Your task to perform on an android device: turn on translation in the chrome app Image 0: 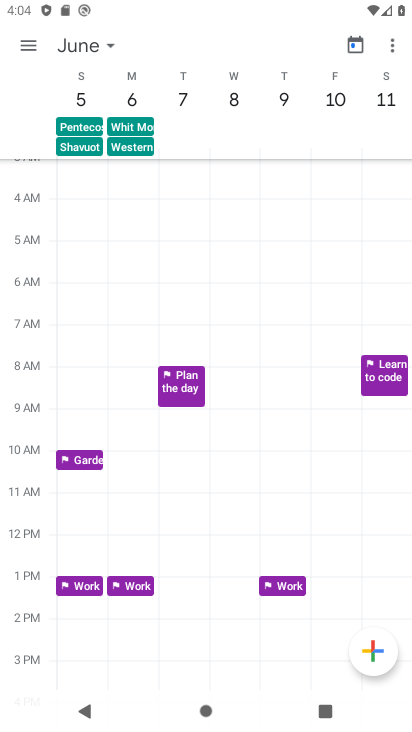
Step 0: press home button
Your task to perform on an android device: turn on translation in the chrome app Image 1: 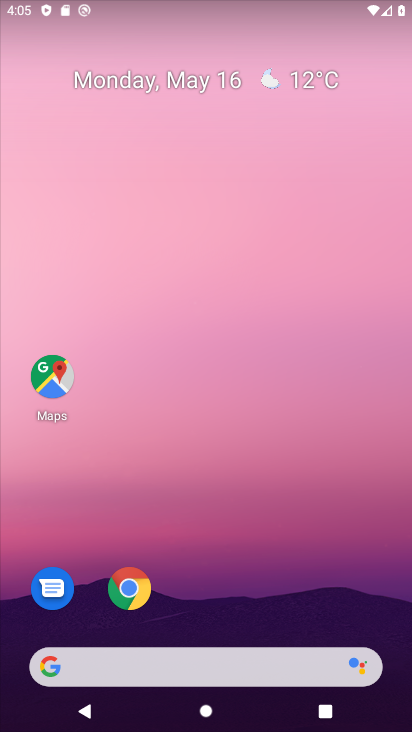
Step 1: click (129, 583)
Your task to perform on an android device: turn on translation in the chrome app Image 2: 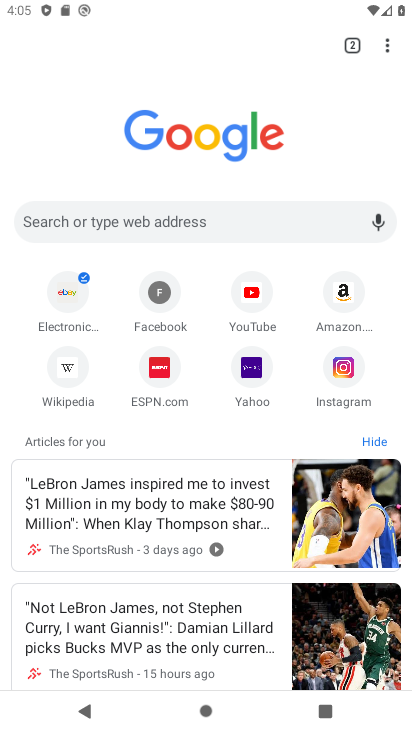
Step 2: click (393, 45)
Your task to perform on an android device: turn on translation in the chrome app Image 3: 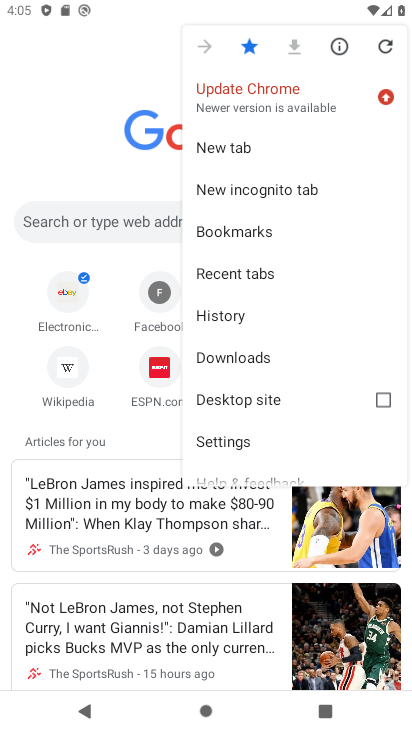
Step 3: click (243, 435)
Your task to perform on an android device: turn on translation in the chrome app Image 4: 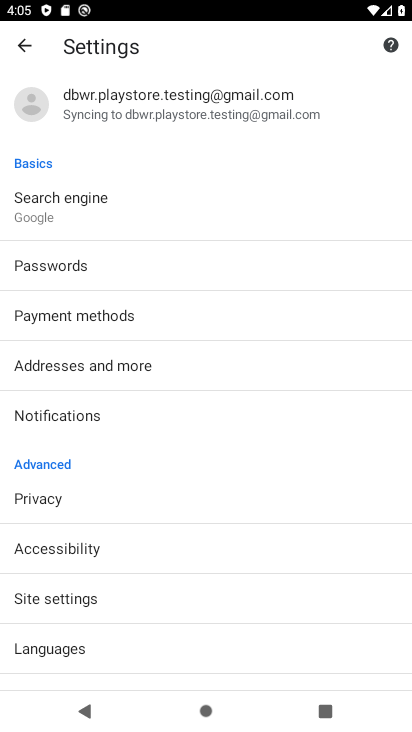
Step 4: click (82, 646)
Your task to perform on an android device: turn on translation in the chrome app Image 5: 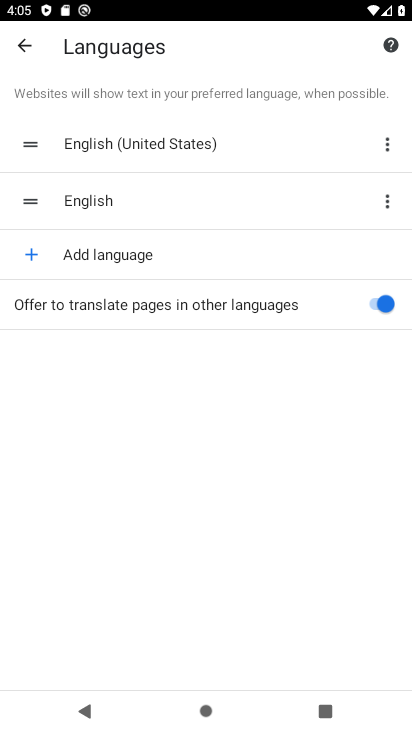
Step 5: task complete